Your task to perform on an android device: open the mobile data screen to see how much data has been used Image 0: 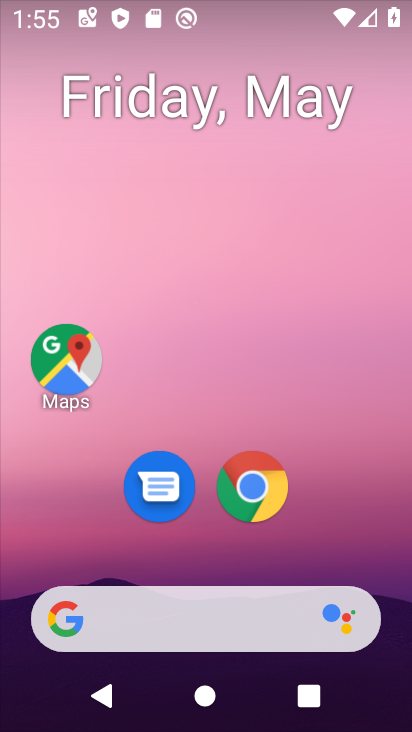
Step 0: click (351, 315)
Your task to perform on an android device: open the mobile data screen to see how much data has been used Image 1: 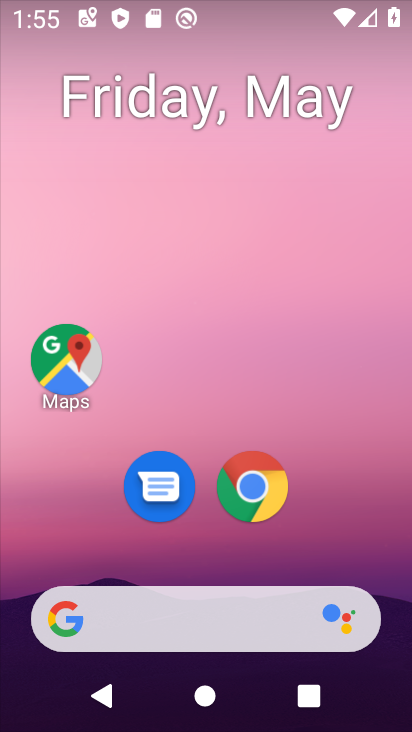
Step 1: drag from (390, 610) to (349, 270)
Your task to perform on an android device: open the mobile data screen to see how much data has been used Image 2: 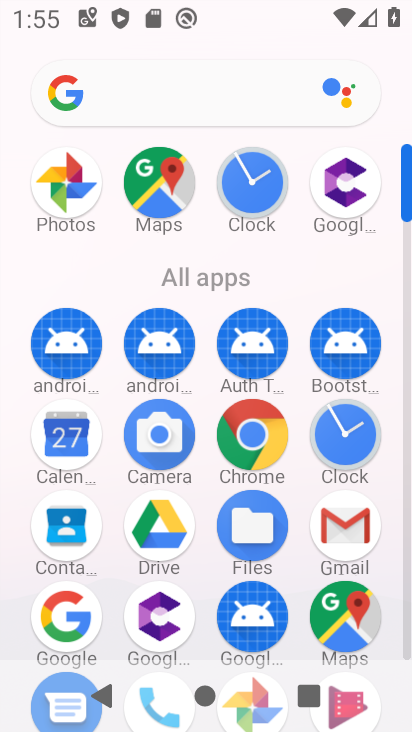
Step 2: drag from (200, 642) to (181, 215)
Your task to perform on an android device: open the mobile data screen to see how much data has been used Image 3: 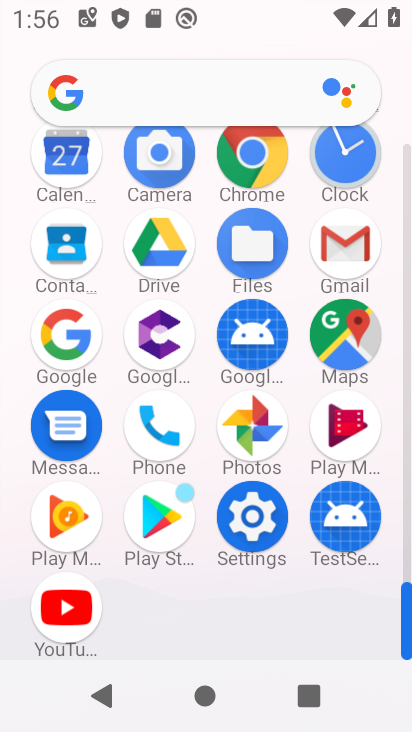
Step 3: click (243, 518)
Your task to perform on an android device: open the mobile data screen to see how much data has been used Image 4: 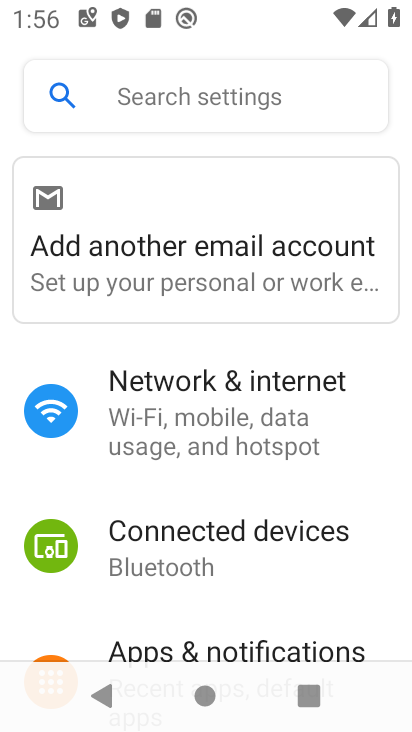
Step 4: click (190, 393)
Your task to perform on an android device: open the mobile data screen to see how much data has been used Image 5: 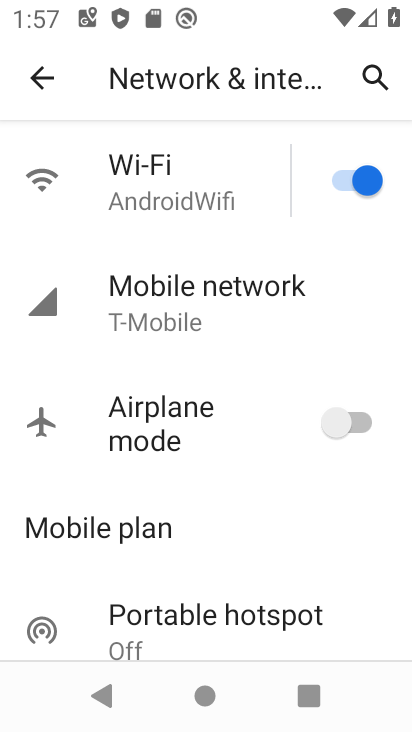
Step 5: click (168, 306)
Your task to perform on an android device: open the mobile data screen to see how much data has been used Image 6: 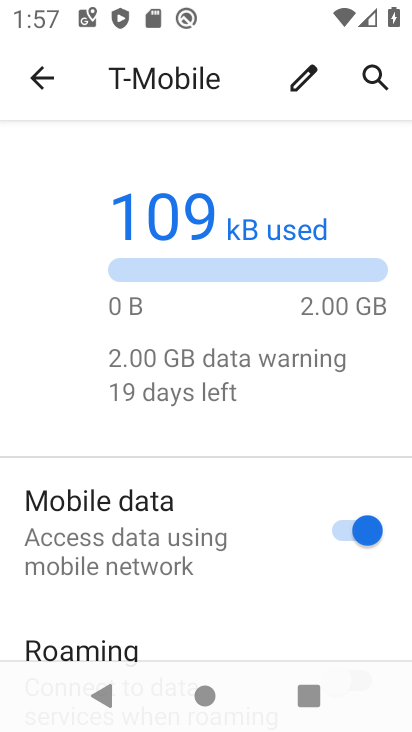
Step 6: task complete